Your task to perform on an android device: Go to CNN.com Image 0: 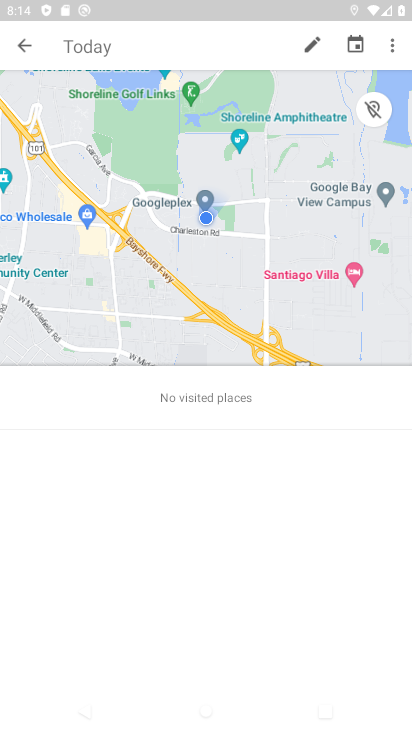
Step 0: press home button
Your task to perform on an android device: Go to CNN.com Image 1: 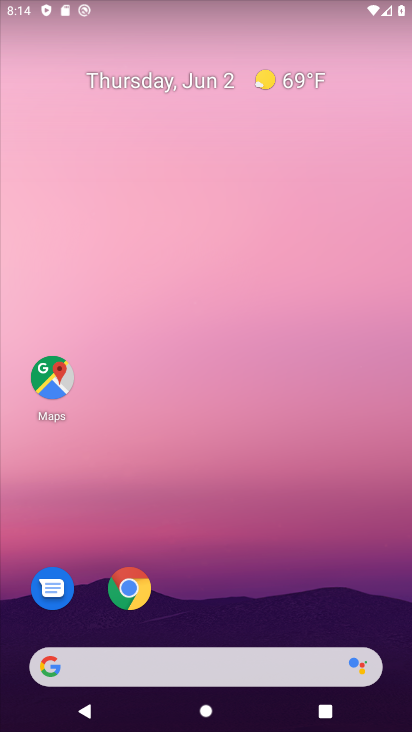
Step 1: click (120, 593)
Your task to perform on an android device: Go to CNN.com Image 2: 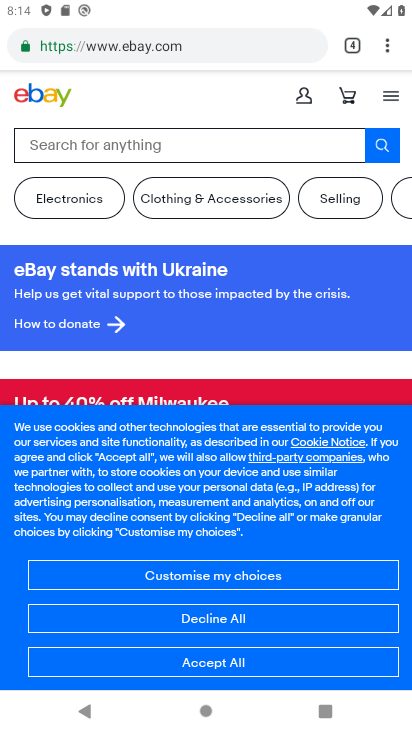
Step 2: click (386, 52)
Your task to perform on an android device: Go to CNN.com Image 3: 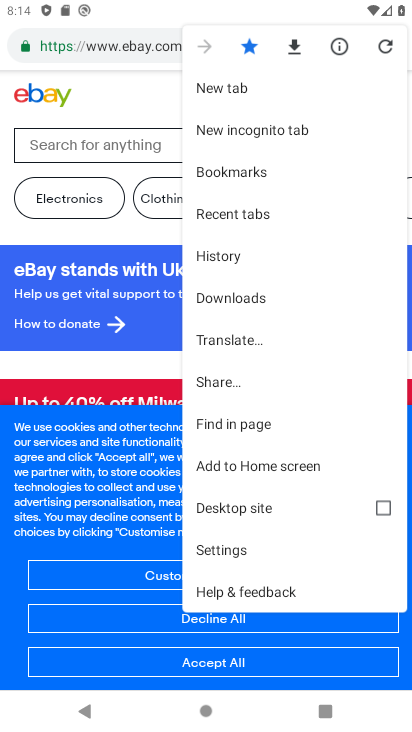
Step 3: click (229, 86)
Your task to perform on an android device: Go to CNN.com Image 4: 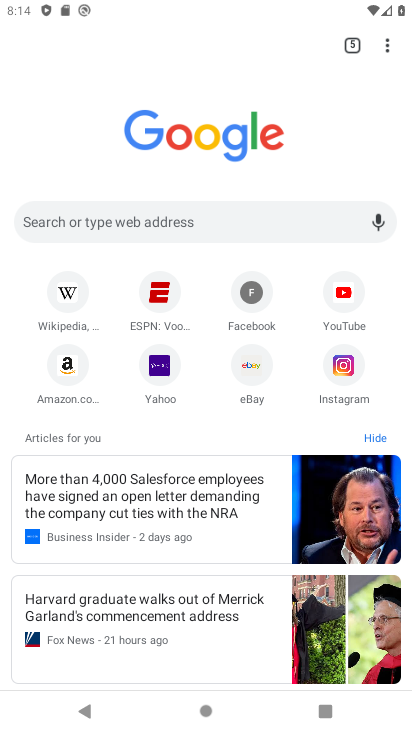
Step 4: click (164, 222)
Your task to perform on an android device: Go to CNN.com Image 5: 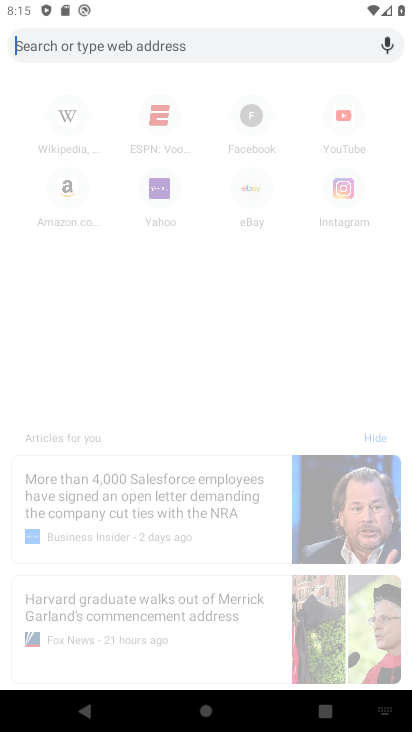
Step 5: type "CNN.com"
Your task to perform on an android device: Go to CNN.com Image 6: 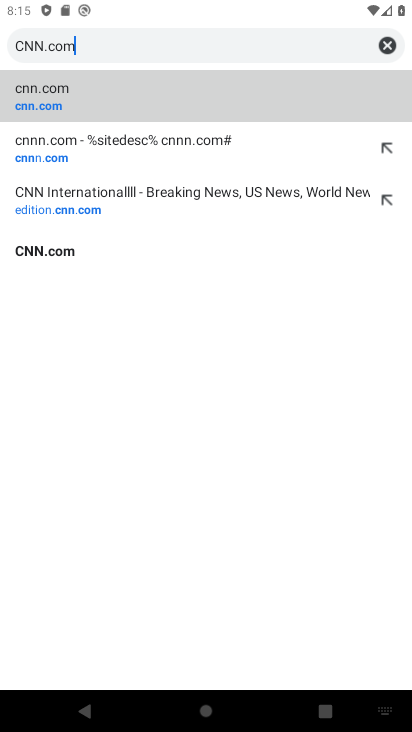
Step 6: click (37, 94)
Your task to perform on an android device: Go to CNN.com Image 7: 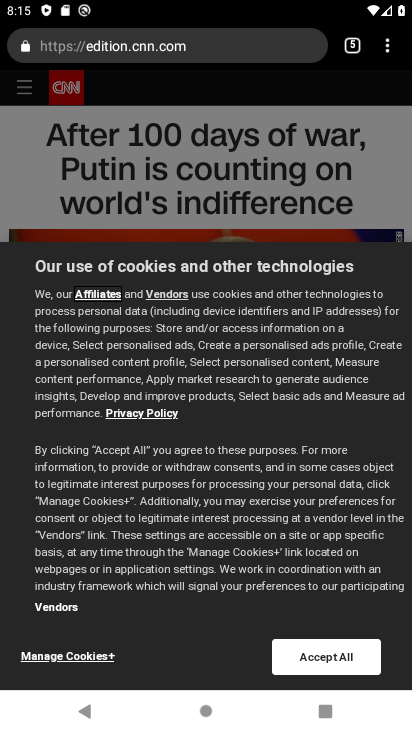
Step 7: click (322, 657)
Your task to perform on an android device: Go to CNN.com Image 8: 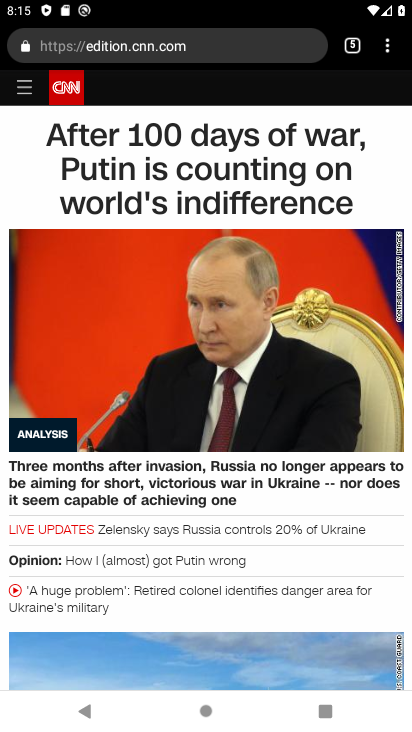
Step 8: task complete